Your task to perform on an android device: Open CNN.com Image 0: 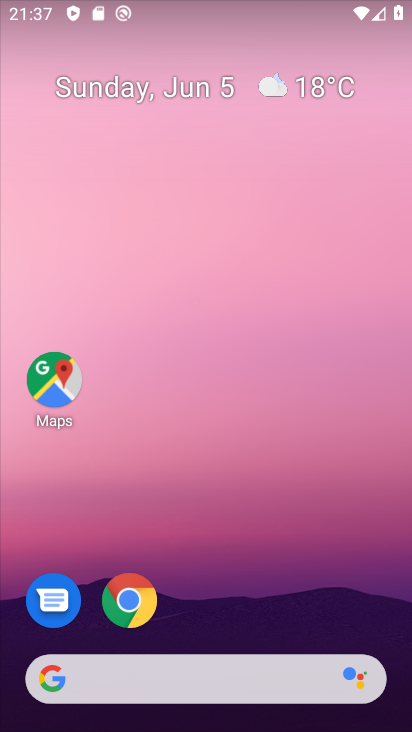
Step 0: click (125, 600)
Your task to perform on an android device: Open CNN.com Image 1: 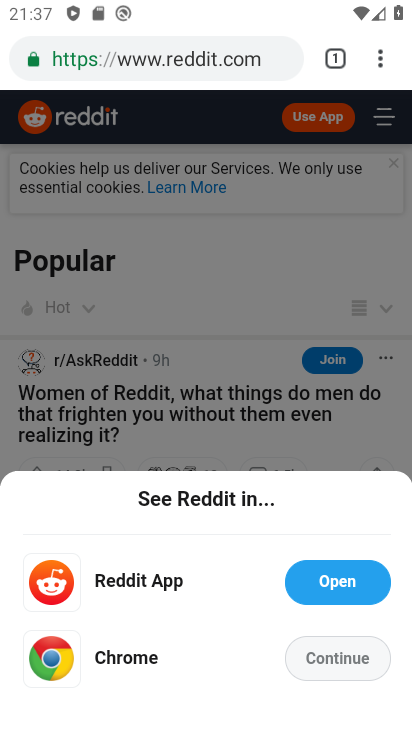
Step 1: click (161, 64)
Your task to perform on an android device: Open CNN.com Image 2: 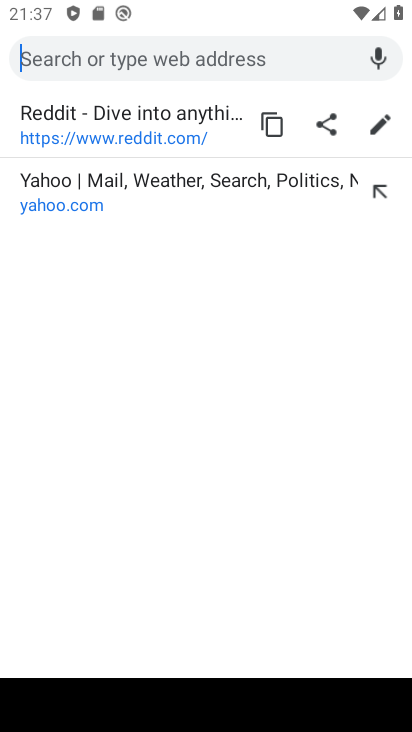
Step 2: type "cnn.com"
Your task to perform on an android device: Open CNN.com Image 3: 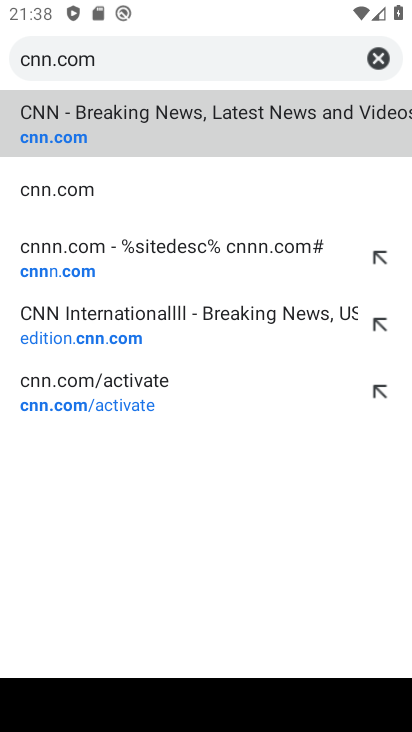
Step 3: click (36, 141)
Your task to perform on an android device: Open CNN.com Image 4: 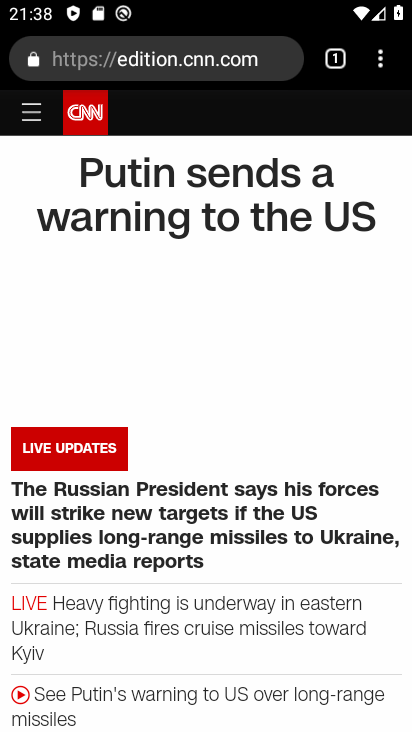
Step 4: task complete